Your task to perform on an android device: Open location settings Image 0: 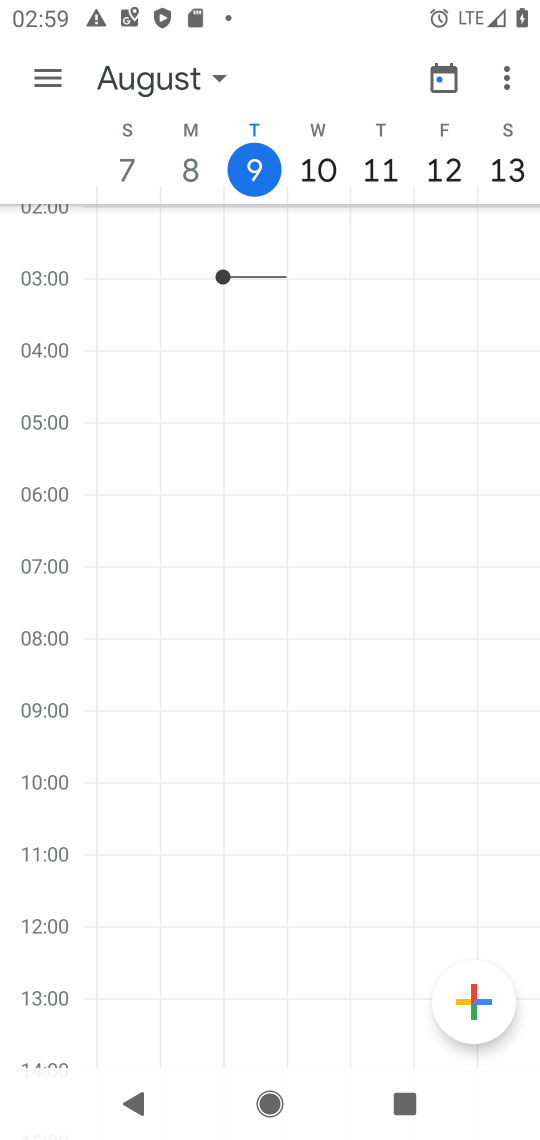
Step 0: press home button
Your task to perform on an android device: Open location settings Image 1: 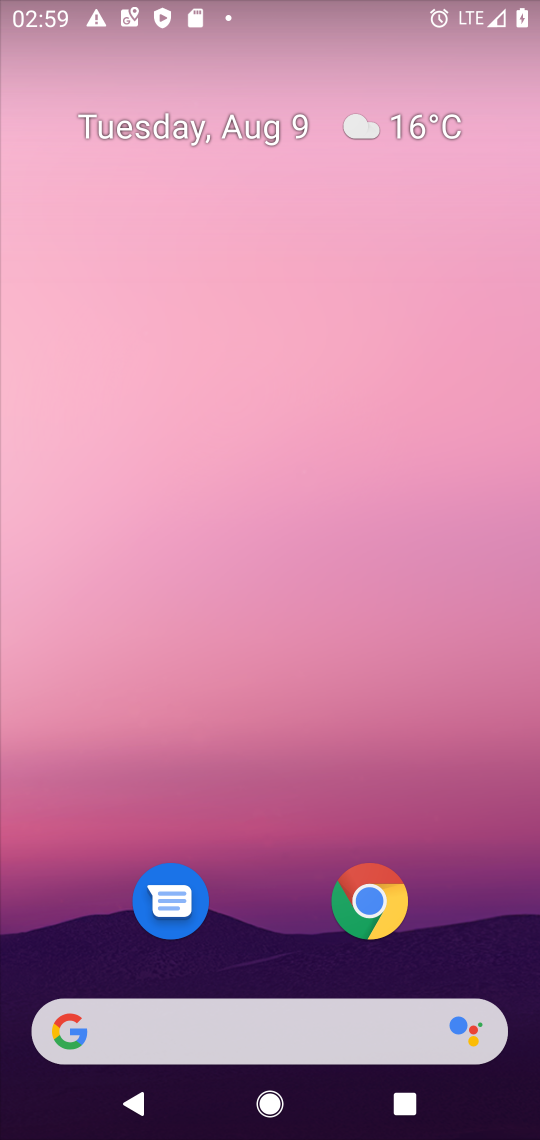
Step 1: drag from (513, 947) to (462, 178)
Your task to perform on an android device: Open location settings Image 2: 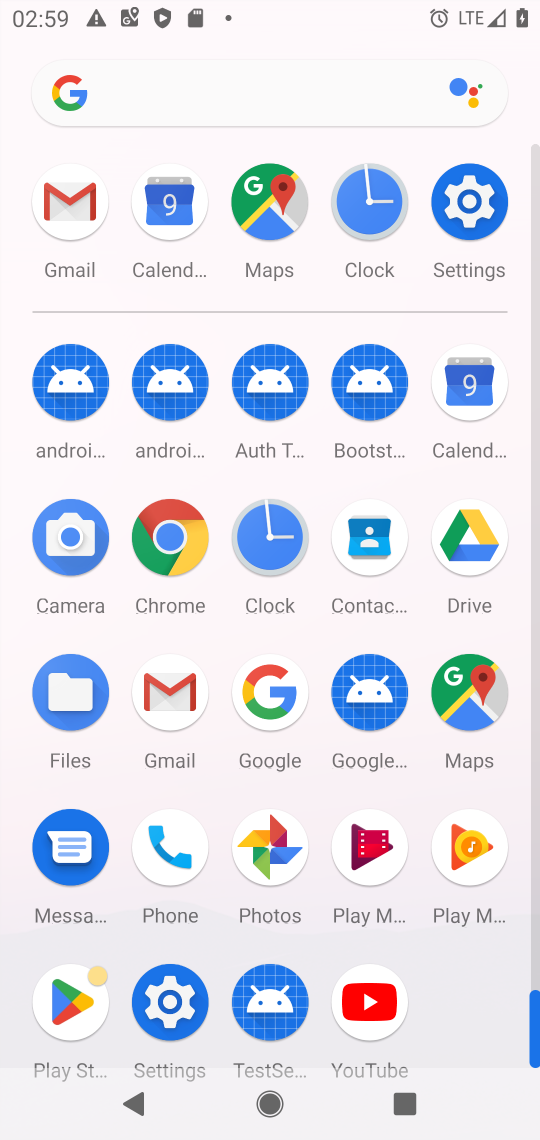
Step 2: click (168, 1003)
Your task to perform on an android device: Open location settings Image 3: 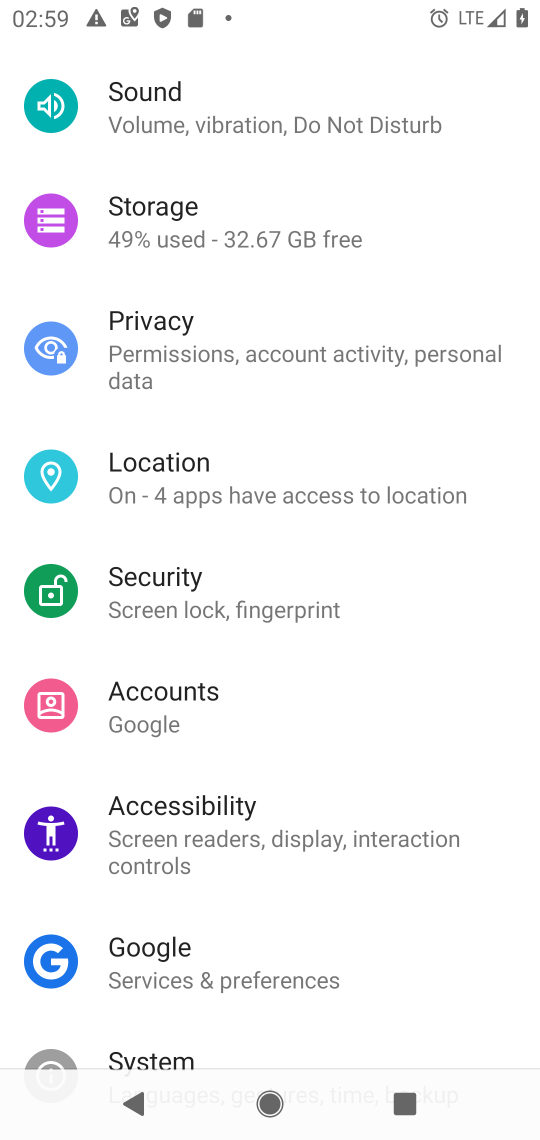
Step 3: click (184, 447)
Your task to perform on an android device: Open location settings Image 4: 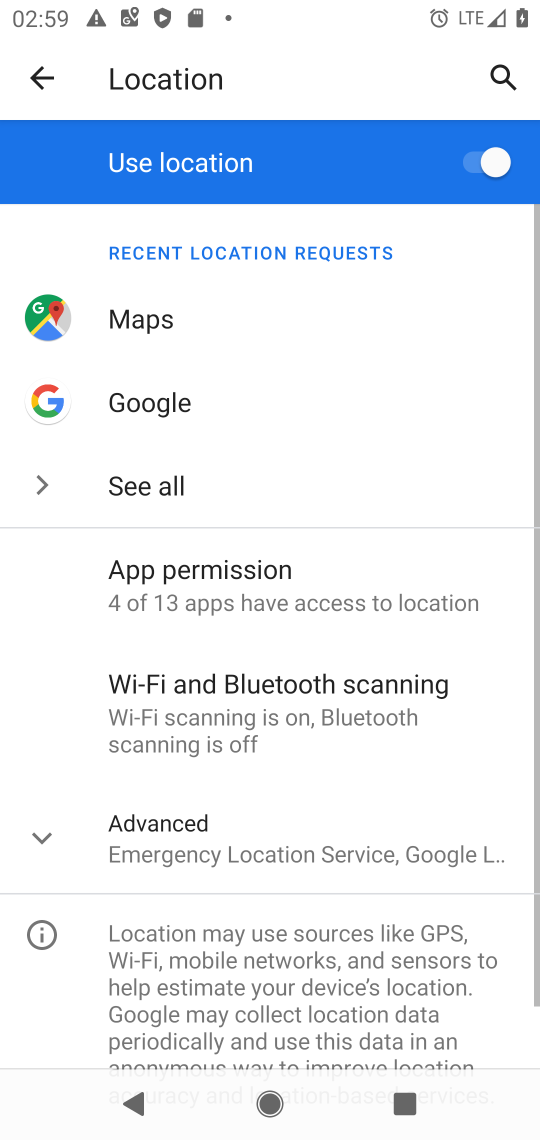
Step 4: drag from (244, 899) to (298, 509)
Your task to perform on an android device: Open location settings Image 5: 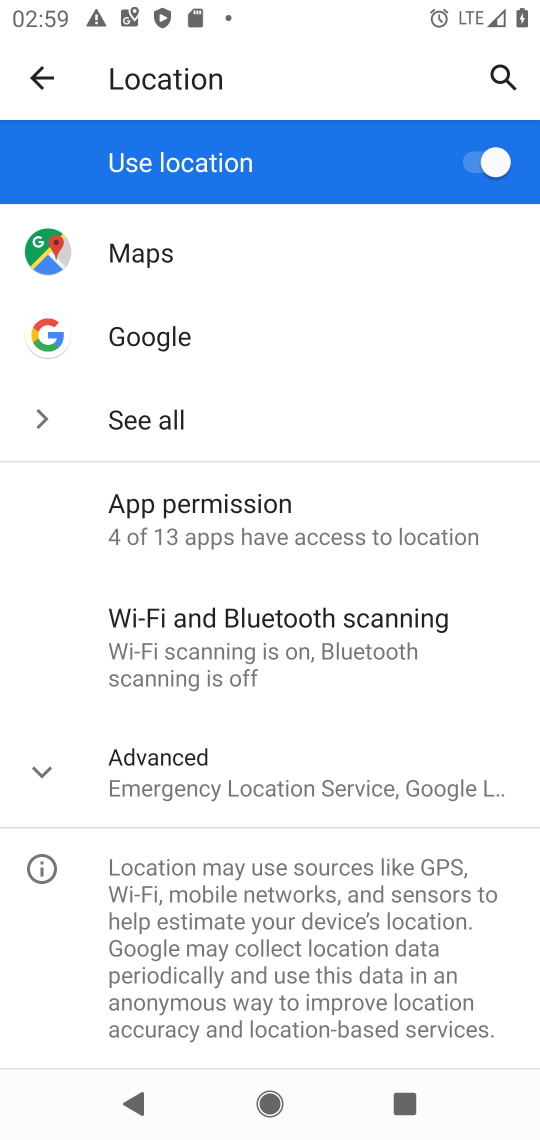
Step 5: click (36, 782)
Your task to perform on an android device: Open location settings Image 6: 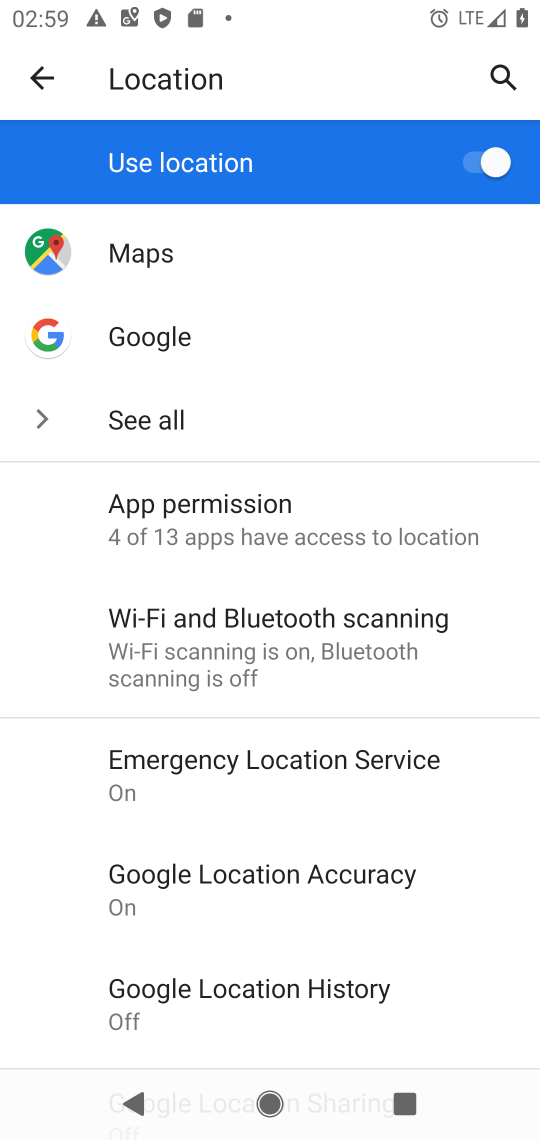
Step 6: task complete